Your task to perform on an android device: What's the weather today? Image 0: 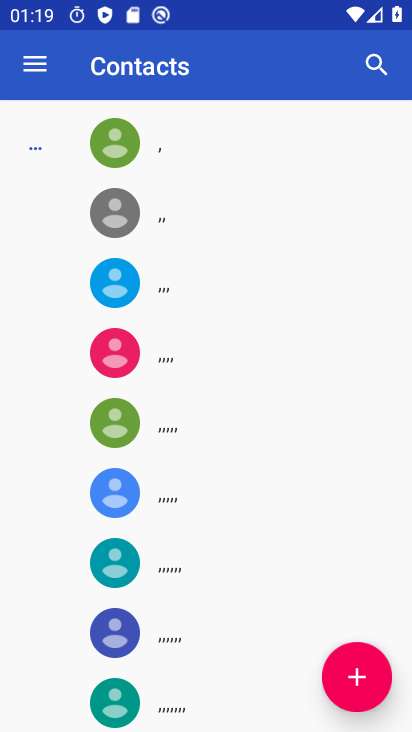
Step 0: press home button
Your task to perform on an android device: What's the weather today? Image 1: 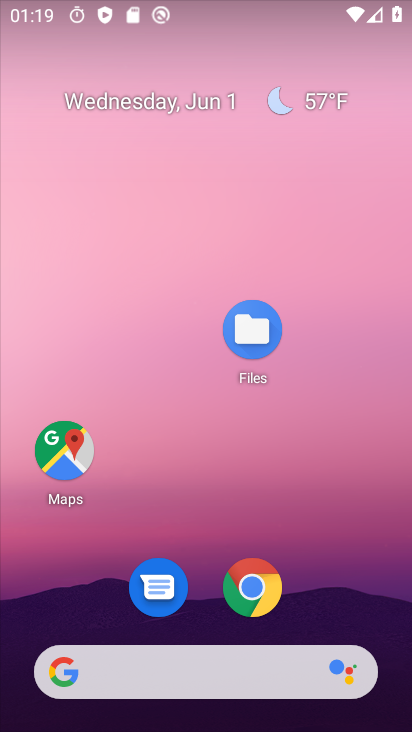
Step 1: click (234, 594)
Your task to perform on an android device: What's the weather today? Image 2: 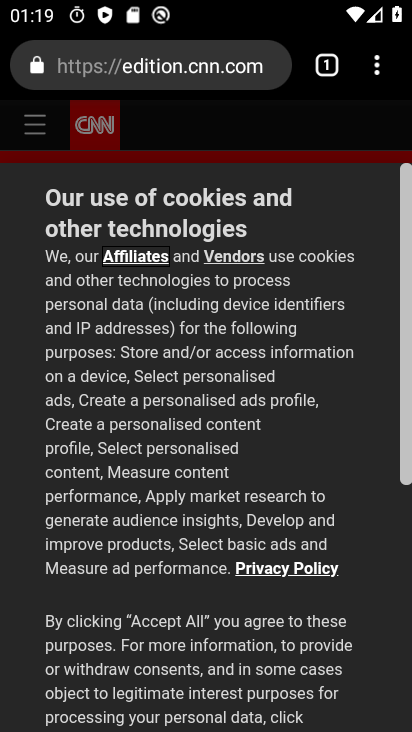
Step 2: click (180, 72)
Your task to perform on an android device: What's the weather today? Image 3: 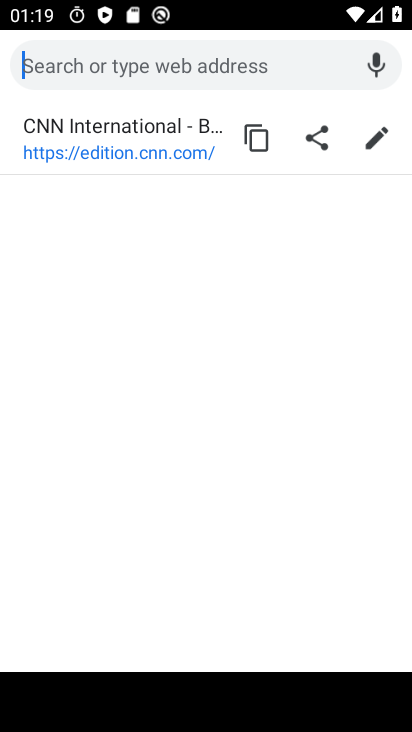
Step 3: type "What's the weather today?"
Your task to perform on an android device: What's the weather today? Image 4: 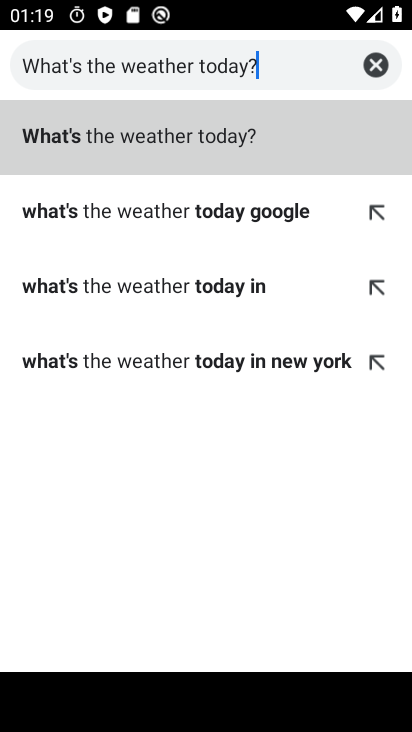
Step 4: click (338, 152)
Your task to perform on an android device: What's the weather today? Image 5: 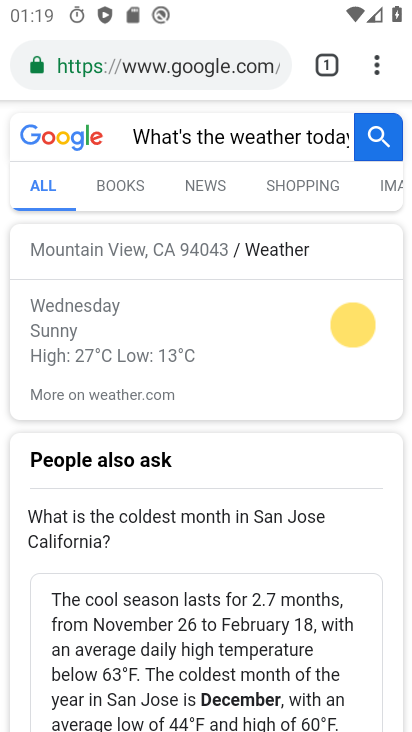
Step 5: task complete